Your task to perform on an android device: turn on bluetooth scan Image 0: 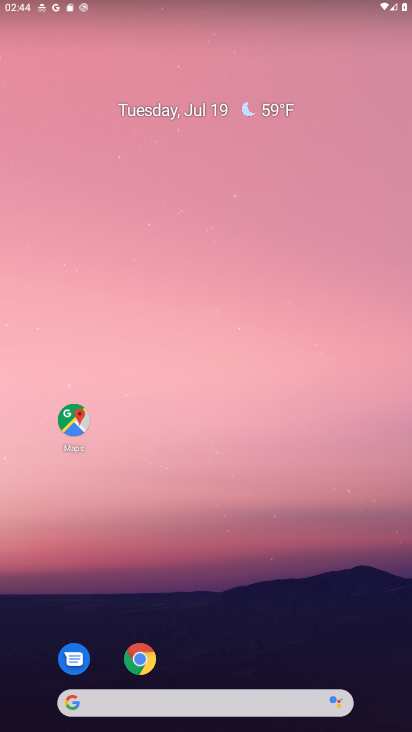
Step 0: drag from (224, 685) to (222, 169)
Your task to perform on an android device: turn on bluetooth scan Image 1: 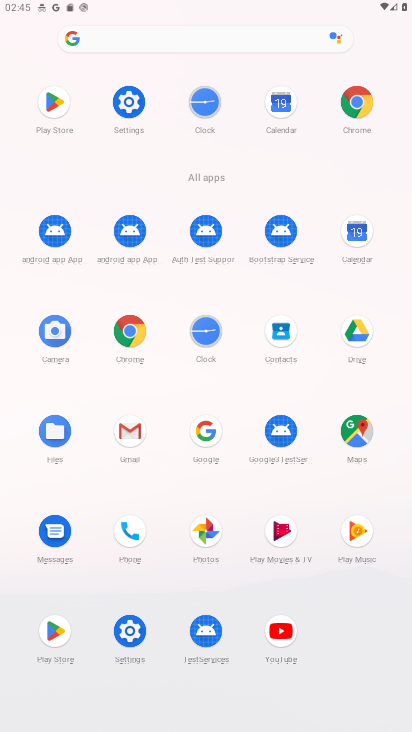
Step 1: click (132, 107)
Your task to perform on an android device: turn on bluetooth scan Image 2: 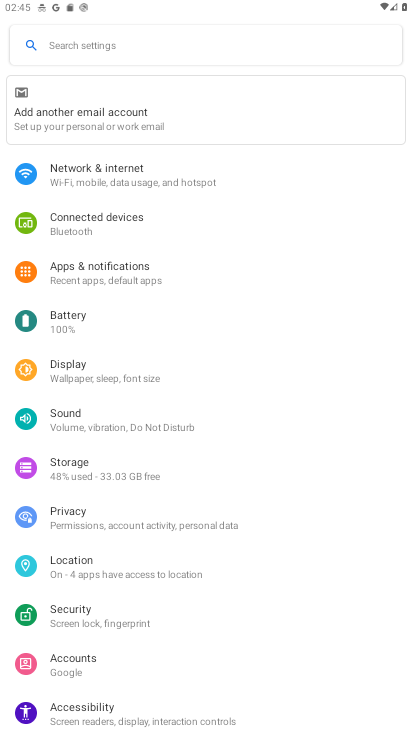
Step 2: click (83, 556)
Your task to perform on an android device: turn on bluetooth scan Image 3: 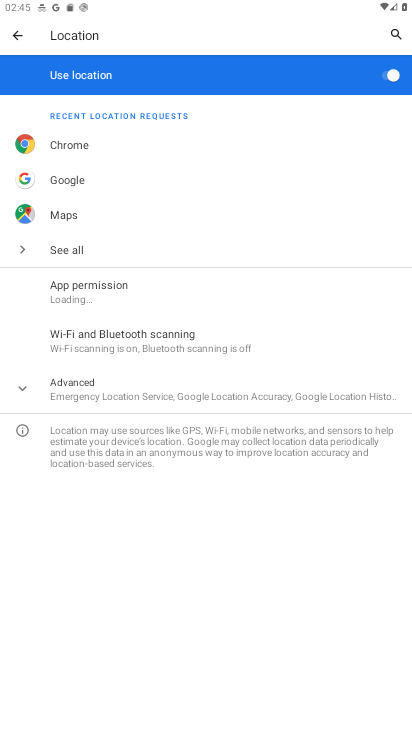
Step 3: click (129, 395)
Your task to perform on an android device: turn on bluetooth scan Image 4: 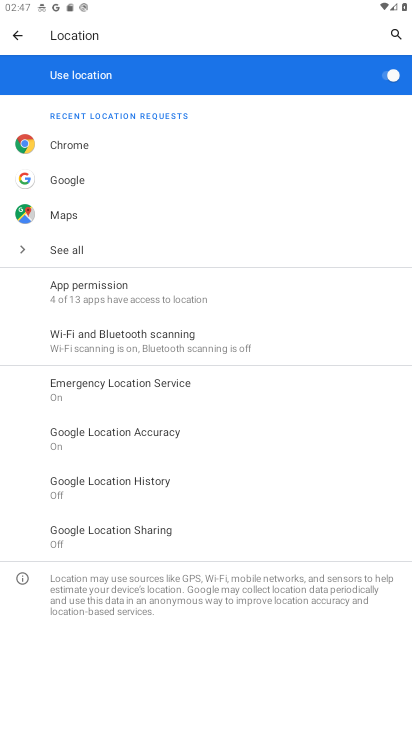
Step 4: click (117, 342)
Your task to perform on an android device: turn on bluetooth scan Image 5: 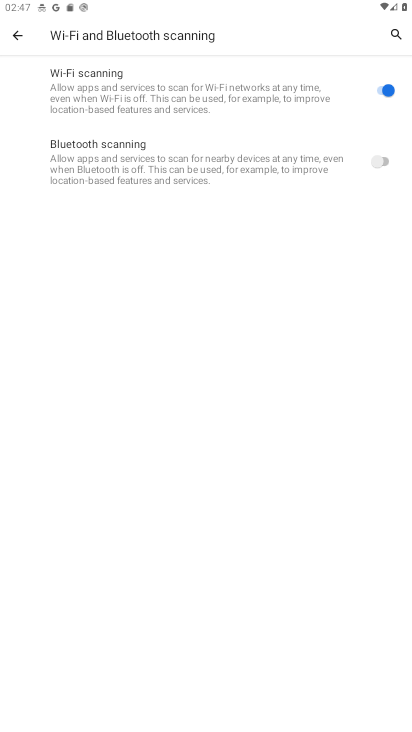
Step 5: click (382, 161)
Your task to perform on an android device: turn on bluetooth scan Image 6: 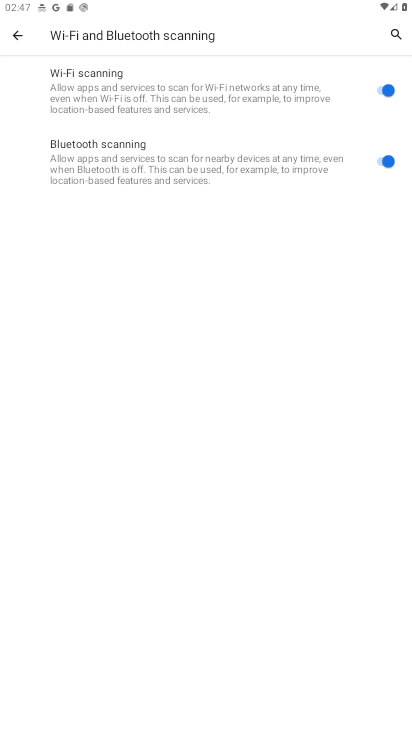
Step 6: task complete